Your task to perform on an android device: Is it going to rain this weekend? Image 0: 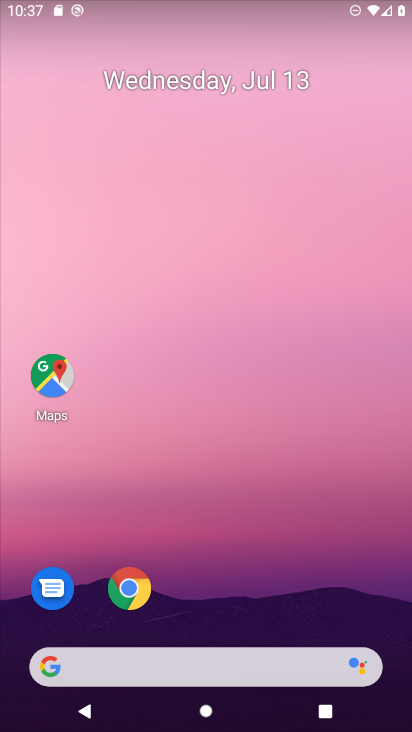
Step 0: drag from (211, 599) to (238, 179)
Your task to perform on an android device: Is it going to rain this weekend? Image 1: 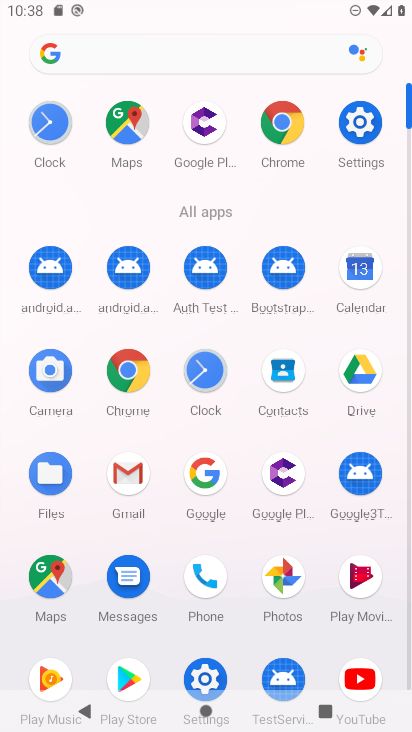
Step 1: click (161, 51)
Your task to perform on an android device: Is it going to rain this weekend? Image 2: 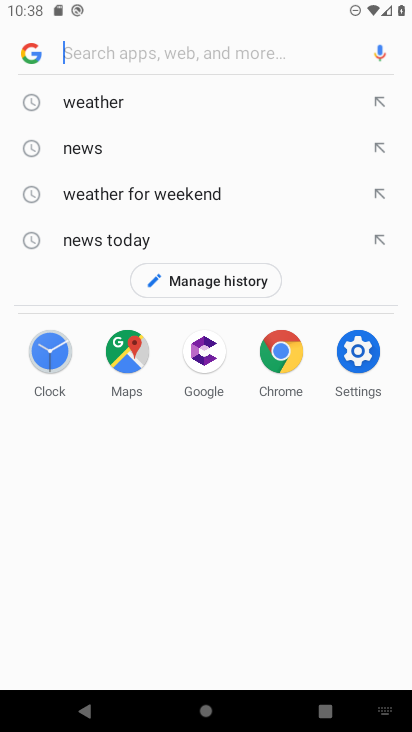
Step 2: click (113, 111)
Your task to perform on an android device: Is it going to rain this weekend? Image 3: 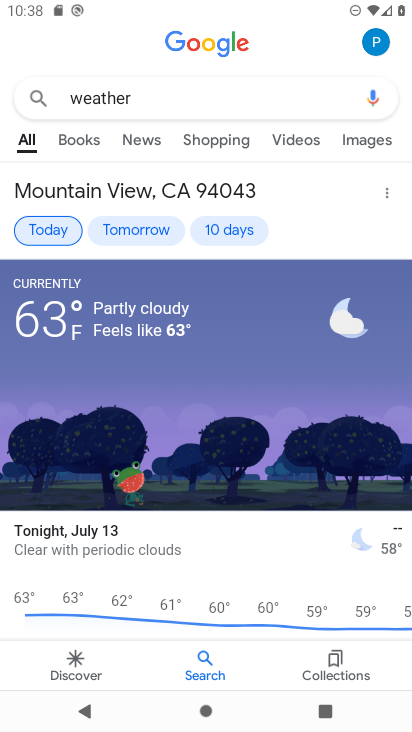
Step 3: click (235, 225)
Your task to perform on an android device: Is it going to rain this weekend? Image 4: 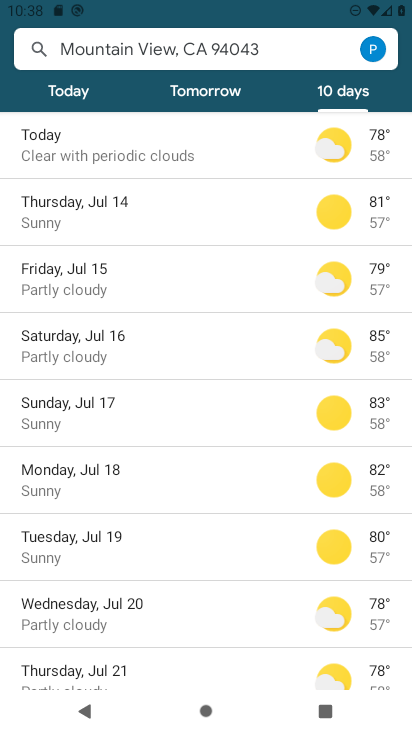
Step 4: task complete